Your task to perform on an android device: choose inbox layout in the gmail app Image 0: 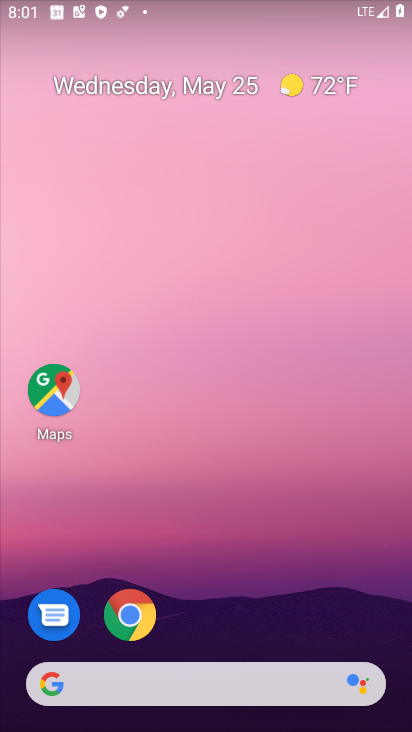
Step 0: drag from (219, 567) to (247, 47)
Your task to perform on an android device: choose inbox layout in the gmail app Image 1: 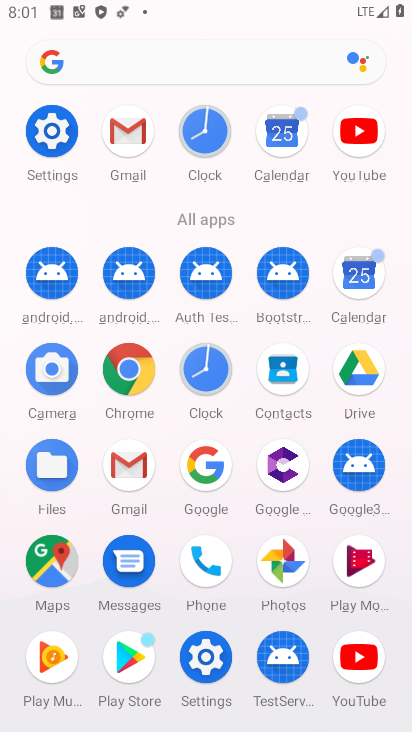
Step 1: click (131, 468)
Your task to perform on an android device: choose inbox layout in the gmail app Image 2: 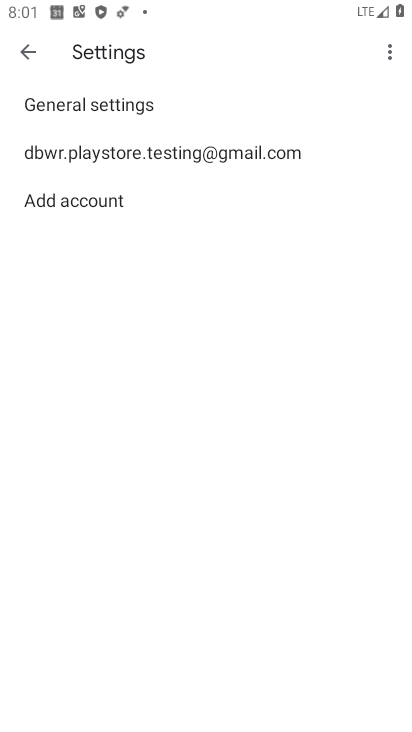
Step 2: click (161, 148)
Your task to perform on an android device: choose inbox layout in the gmail app Image 3: 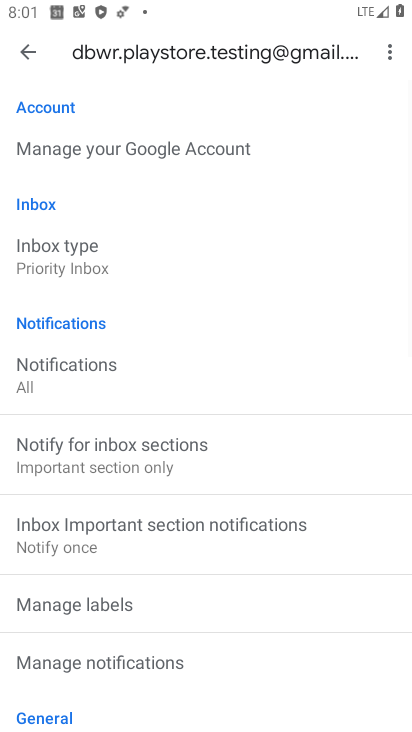
Step 3: click (79, 255)
Your task to perform on an android device: choose inbox layout in the gmail app Image 4: 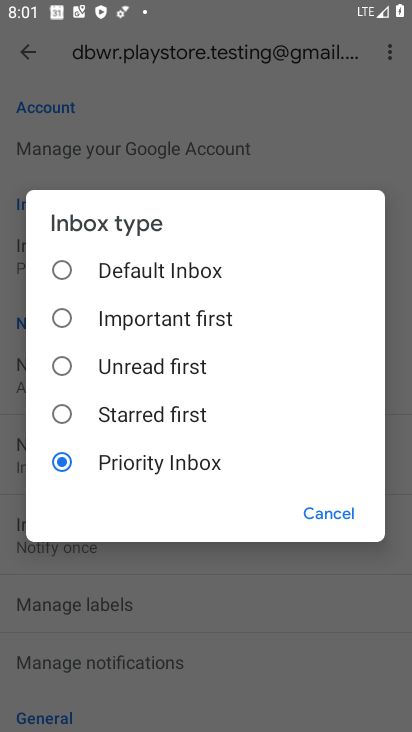
Step 4: click (66, 267)
Your task to perform on an android device: choose inbox layout in the gmail app Image 5: 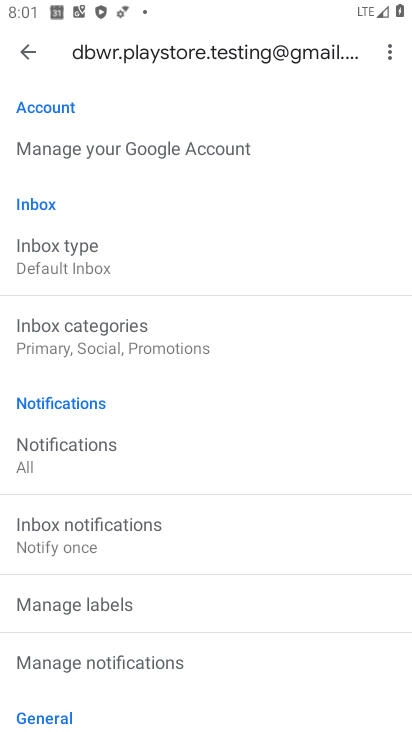
Step 5: task complete